Your task to perform on an android device: Go to settings Image 0: 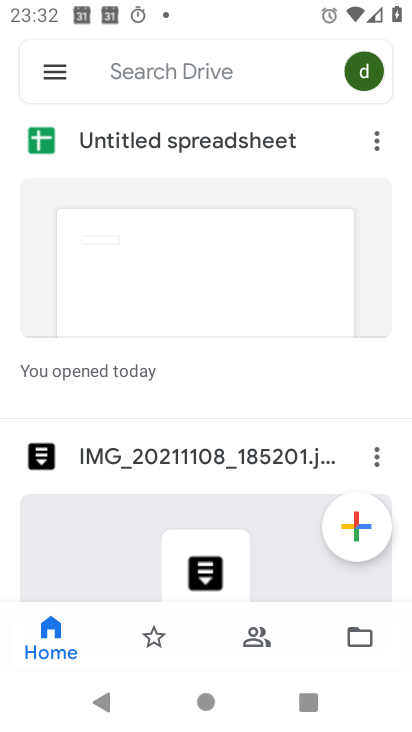
Step 0: press home button
Your task to perform on an android device: Go to settings Image 1: 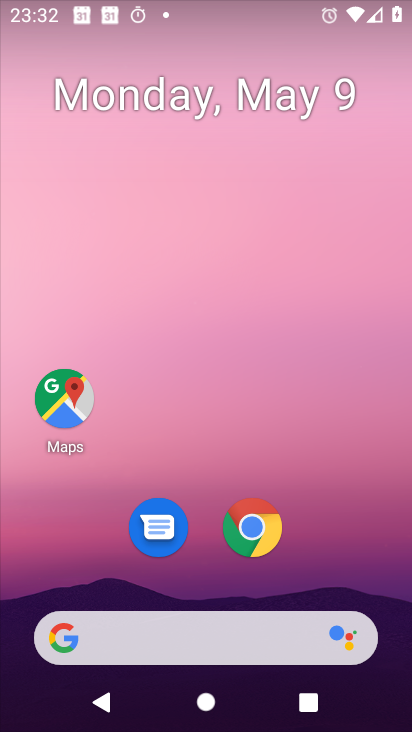
Step 1: drag from (203, 580) to (172, 47)
Your task to perform on an android device: Go to settings Image 2: 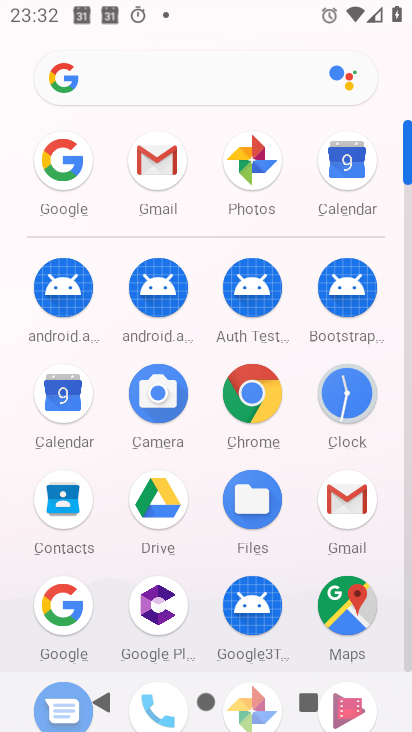
Step 2: drag from (206, 561) to (169, 33)
Your task to perform on an android device: Go to settings Image 3: 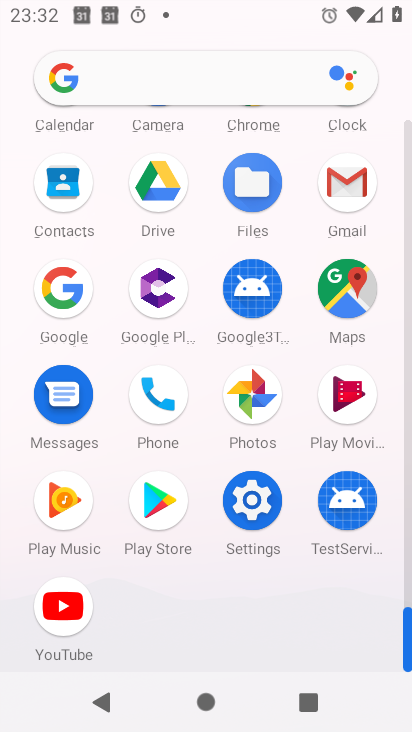
Step 3: click (253, 505)
Your task to perform on an android device: Go to settings Image 4: 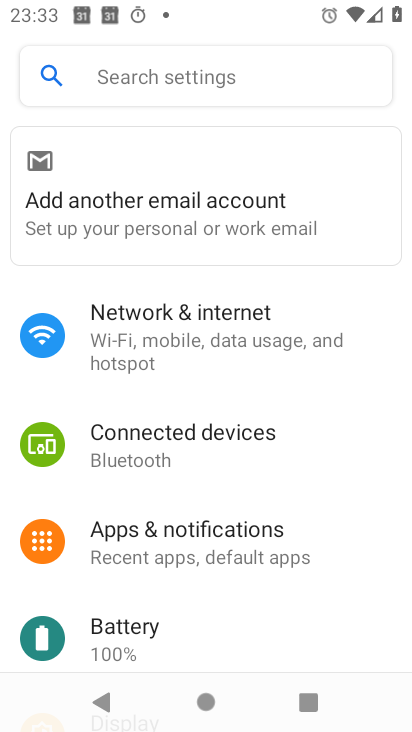
Step 4: task complete